Your task to perform on an android device: open a new tab in the chrome app Image 0: 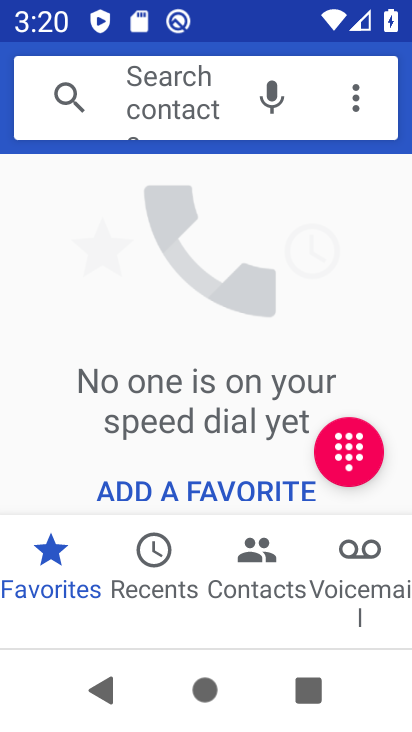
Step 0: press home button
Your task to perform on an android device: open a new tab in the chrome app Image 1: 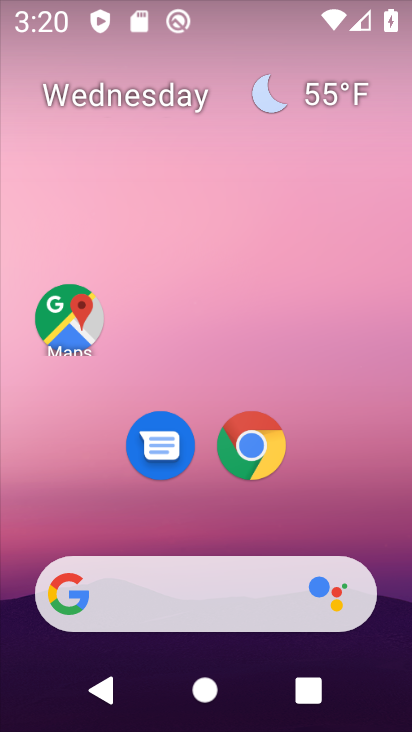
Step 1: click (255, 444)
Your task to perform on an android device: open a new tab in the chrome app Image 2: 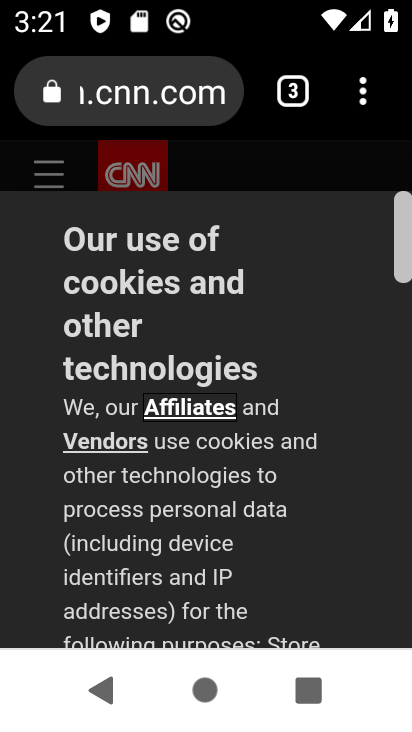
Step 2: click (373, 91)
Your task to perform on an android device: open a new tab in the chrome app Image 3: 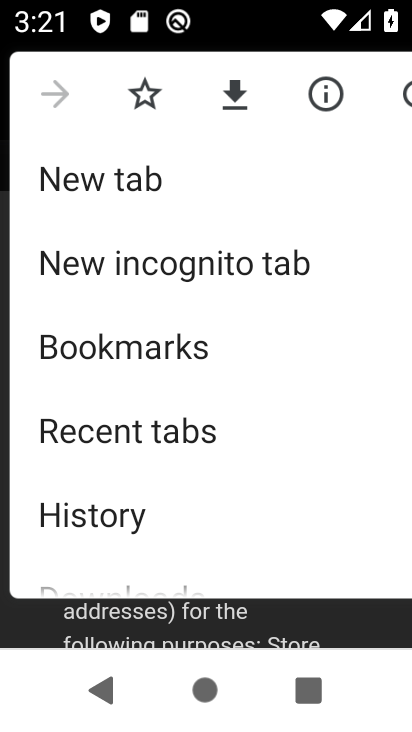
Step 3: click (115, 164)
Your task to perform on an android device: open a new tab in the chrome app Image 4: 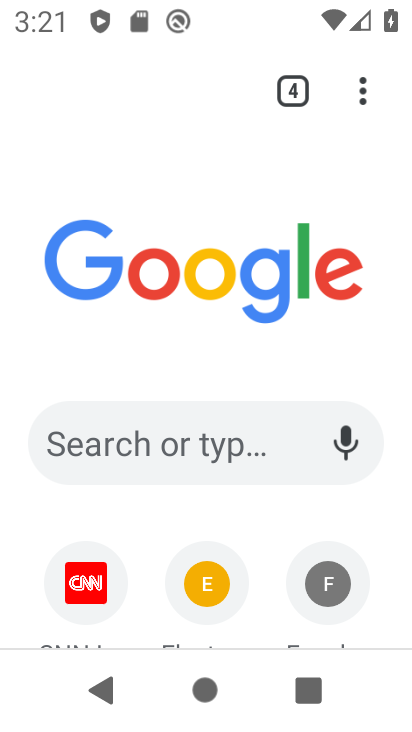
Step 4: task complete